Your task to perform on an android device: Open settings Image 0: 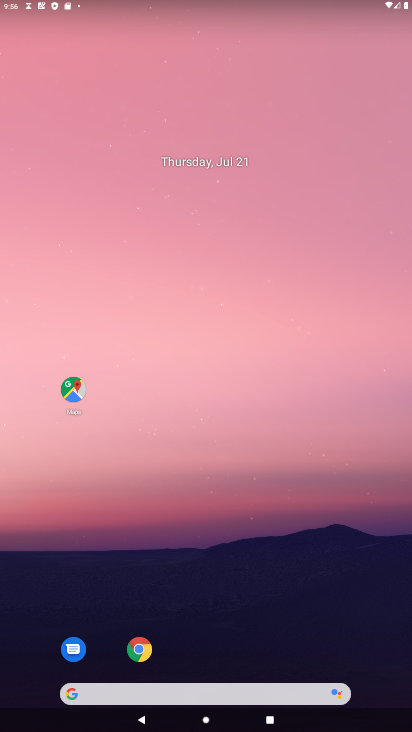
Step 0: drag from (284, 598) to (309, 164)
Your task to perform on an android device: Open settings Image 1: 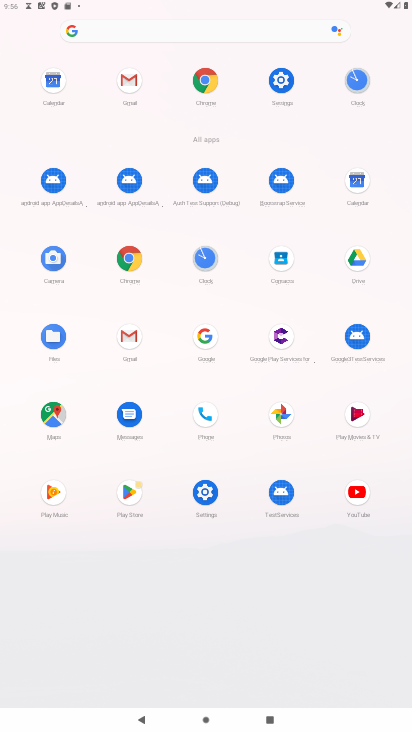
Step 1: click (209, 492)
Your task to perform on an android device: Open settings Image 2: 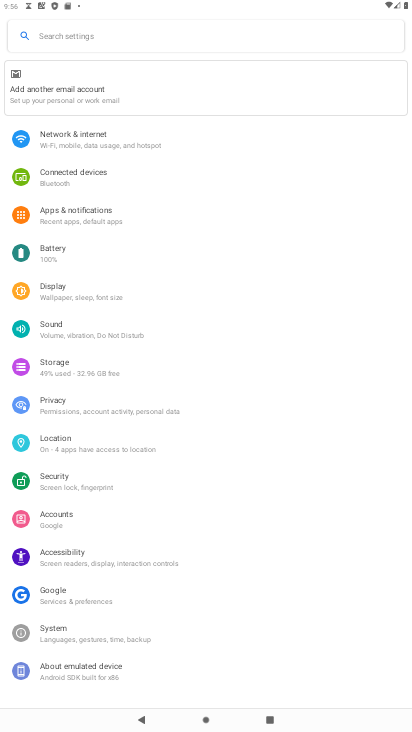
Step 2: task complete